Your task to perform on an android device: set the stopwatch Image 0: 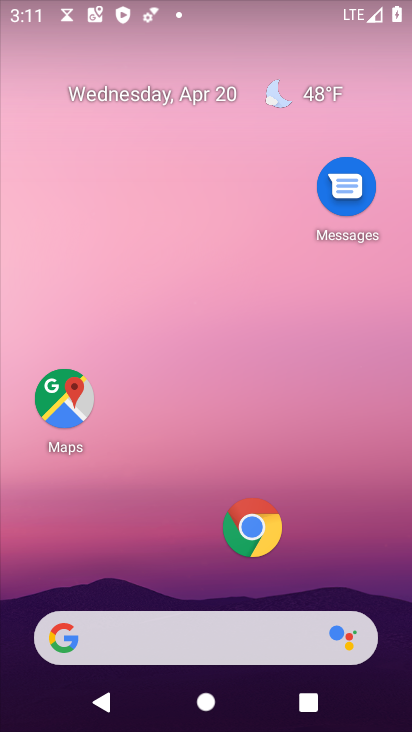
Step 0: drag from (215, 635) to (337, 67)
Your task to perform on an android device: set the stopwatch Image 1: 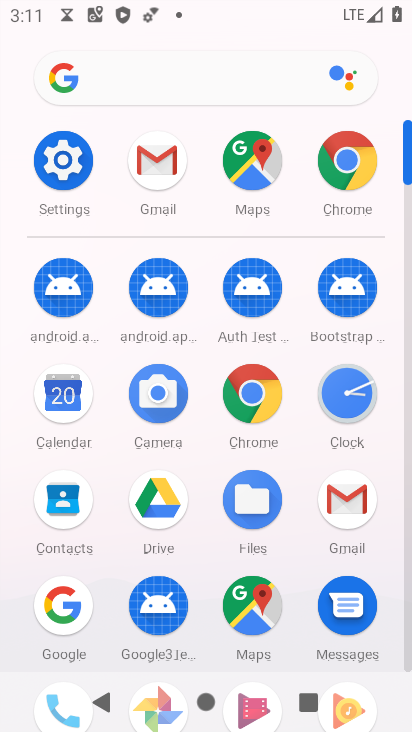
Step 1: click (348, 404)
Your task to perform on an android device: set the stopwatch Image 2: 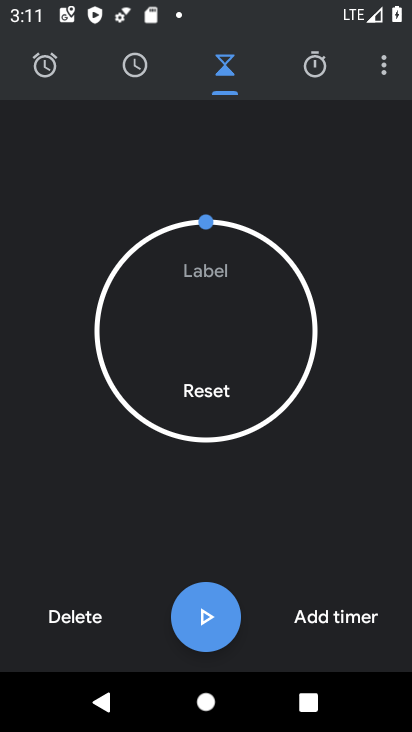
Step 2: click (317, 64)
Your task to perform on an android device: set the stopwatch Image 3: 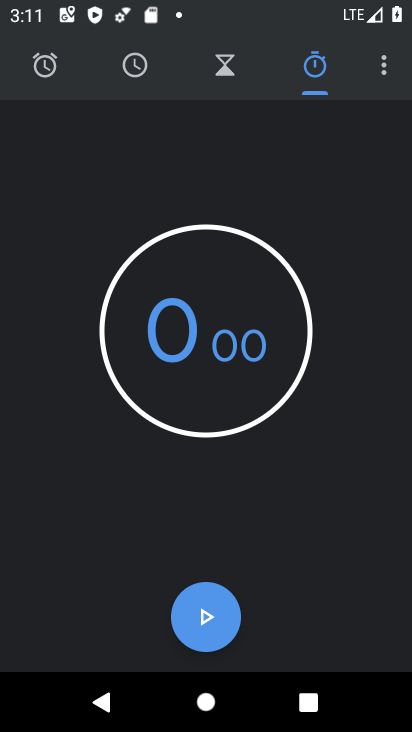
Step 3: click (206, 357)
Your task to perform on an android device: set the stopwatch Image 4: 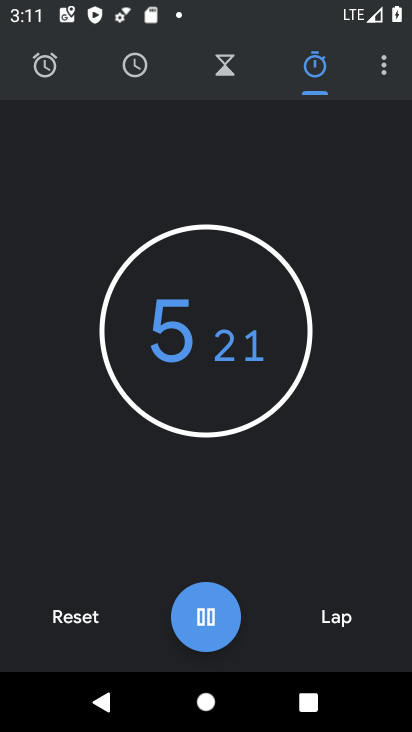
Step 4: click (213, 615)
Your task to perform on an android device: set the stopwatch Image 5: 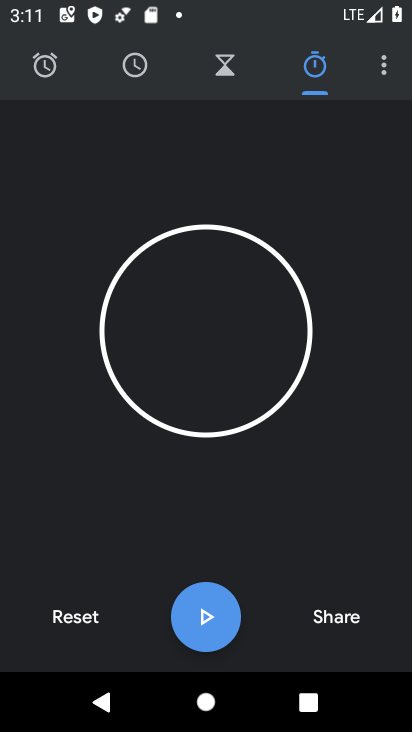
Step 5: task complete